Your task to perform on an android device: Show the shopping cart on costco. Add "razer nari" to the cart on costco Image 0: 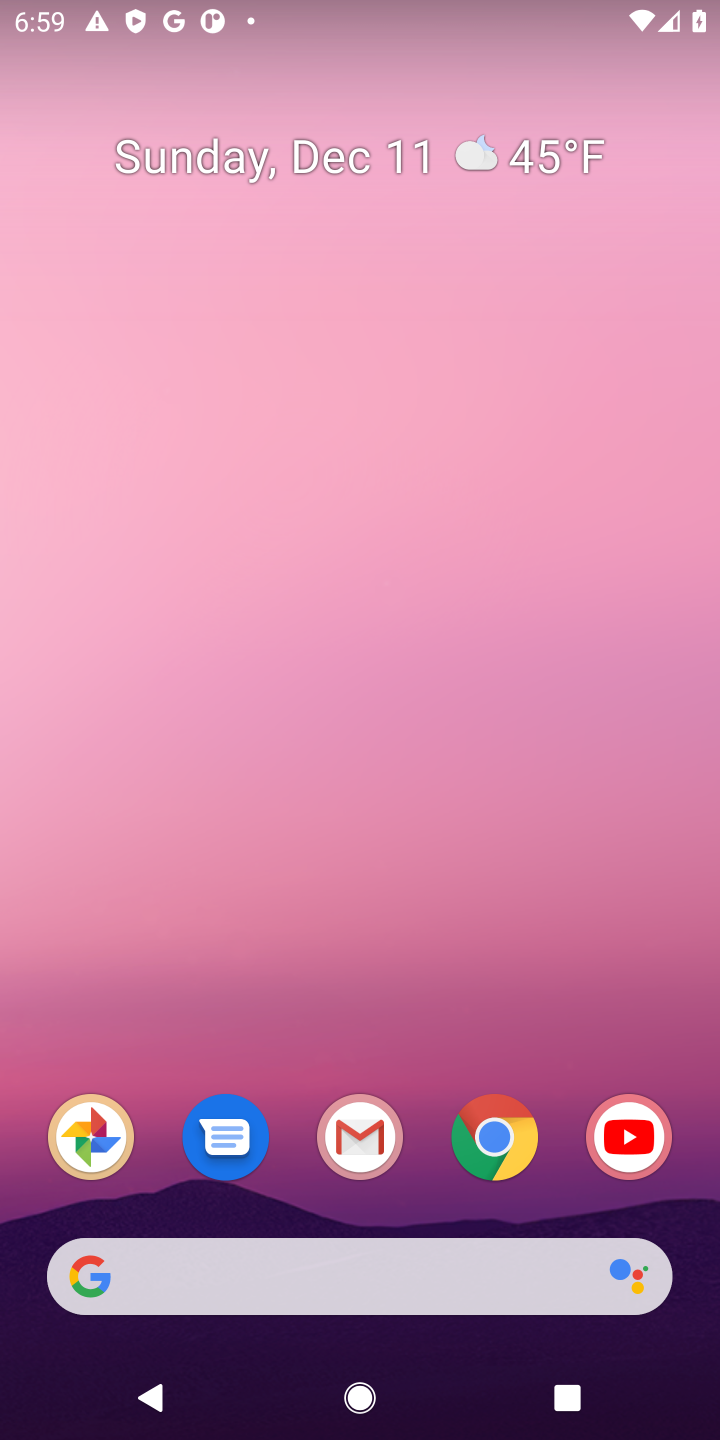
Step 0: click (466, 1136)
Your task to perform on an android device: Show the shopping cart on costco. Add "razer nari" to the cart on costco Image 1: 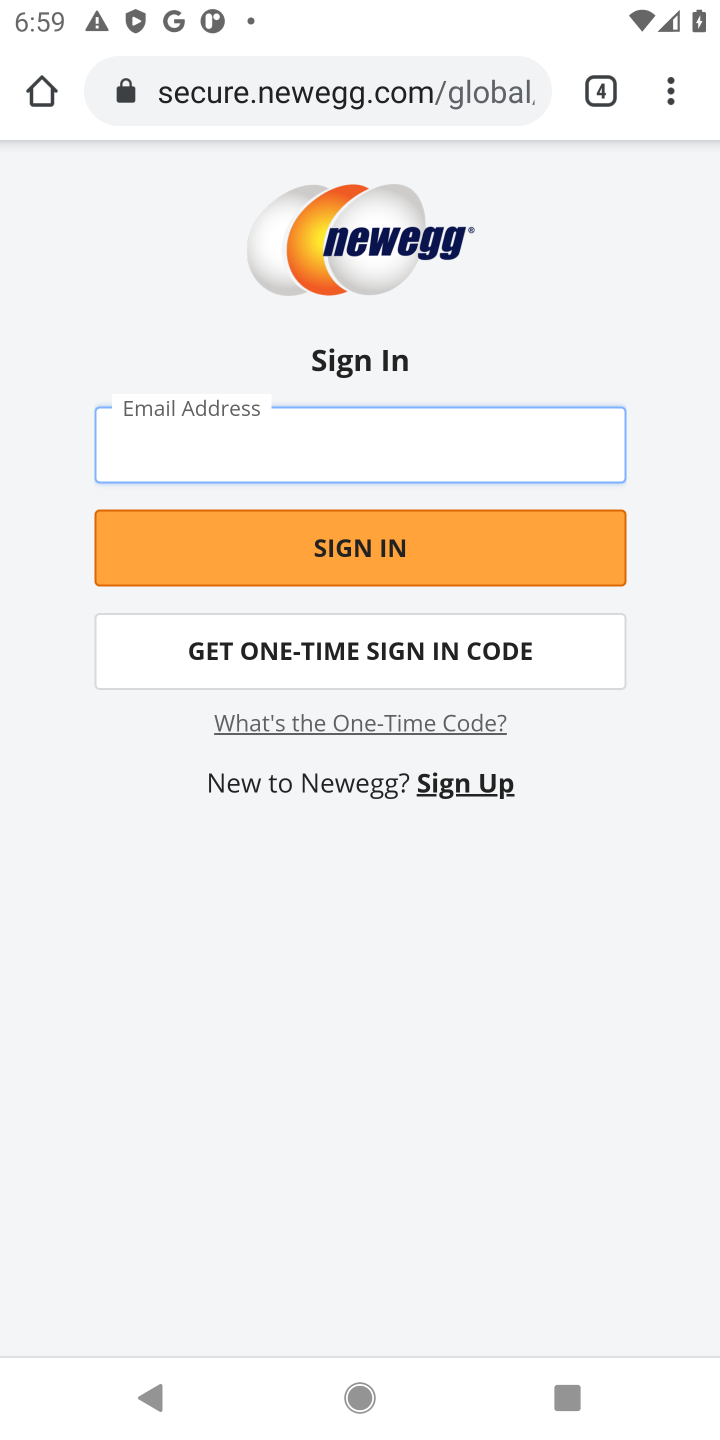
Step 1: click (427, 93)
Your task to perform on an android device: Show the shopping cart on costco. Add "razer nari" to the cart on costco Image 2: 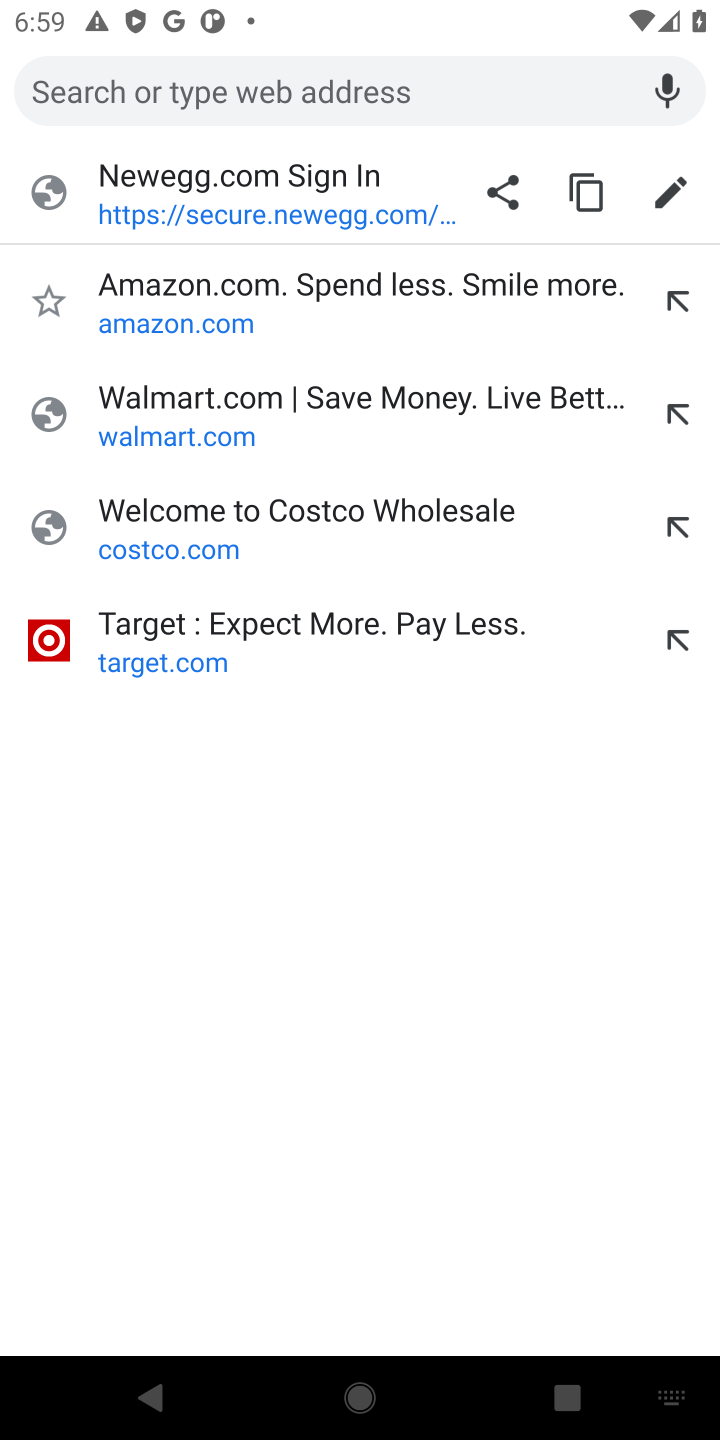
Step 2: click (184, 557)
Your task to perform on an android device: Show the shopping cart on costco. Add "razer nari" to the cart on costco Image 3: 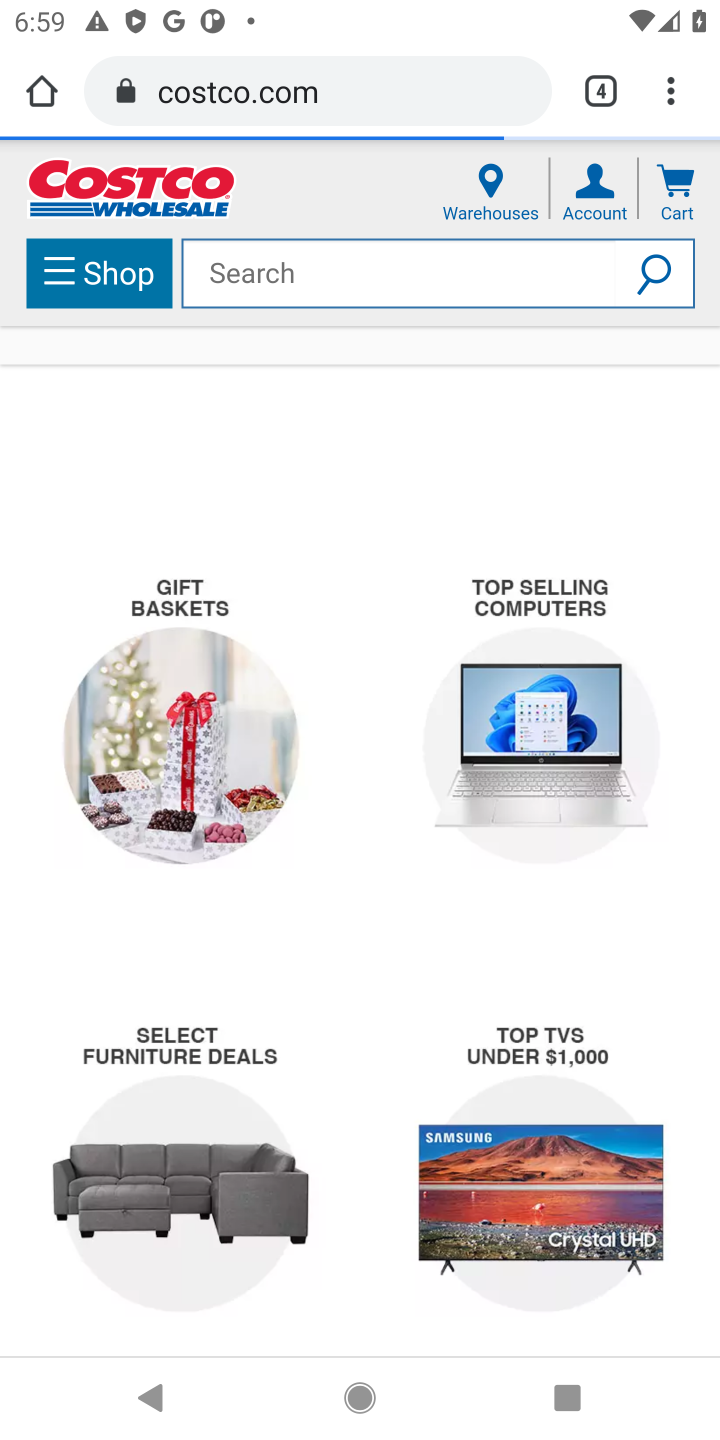
Step 3: click (679, 209)
Your task to perform on an android device: Show the shopping cart on costco. Add "razer nari" to the cart on costco Image 4: 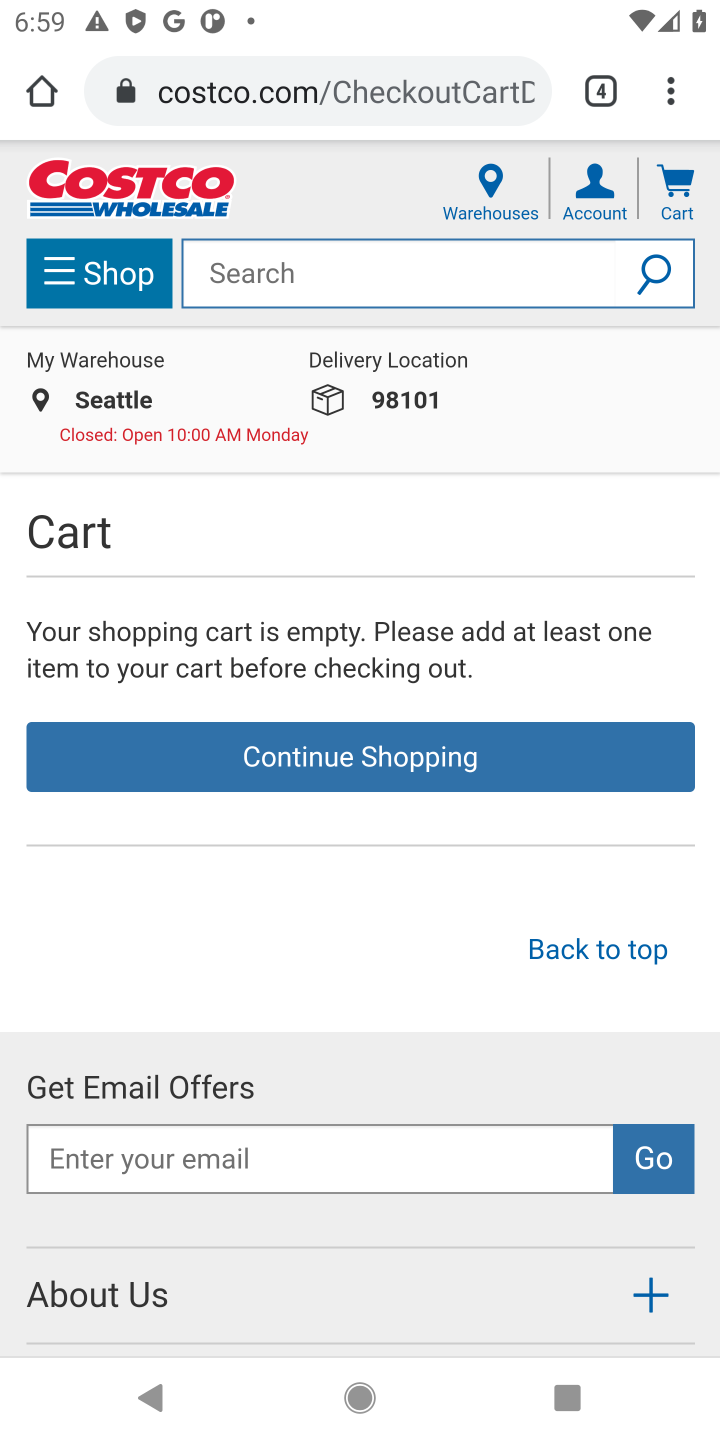
Step 4: click (532, 266)
Your task to perform on an android device: Show the shopping cart on costco. Add "razer nari" to the cart on costco Image 5: 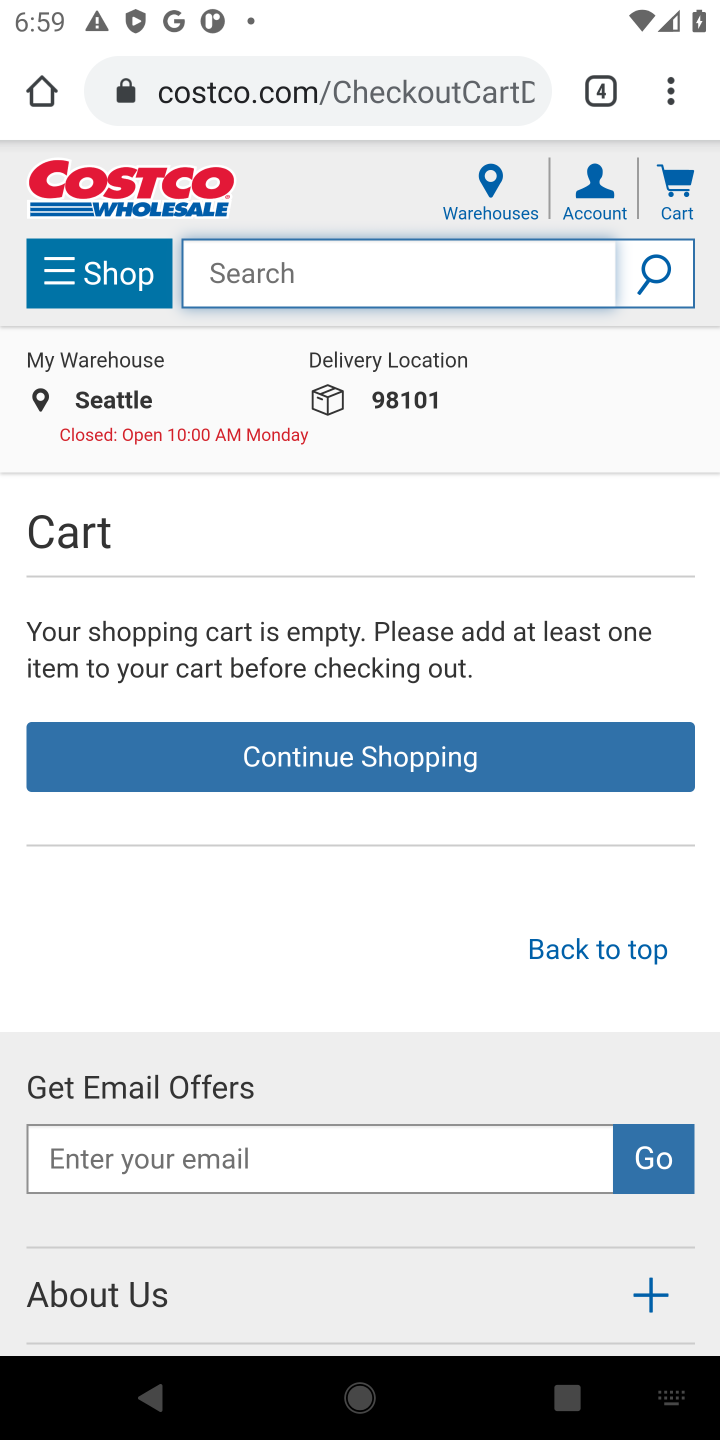
Step 5: type "razer nari"
Your task to perform on an android device: Show the shopping cart on costco. Add "razer nari" to the cart on costco Image 6: 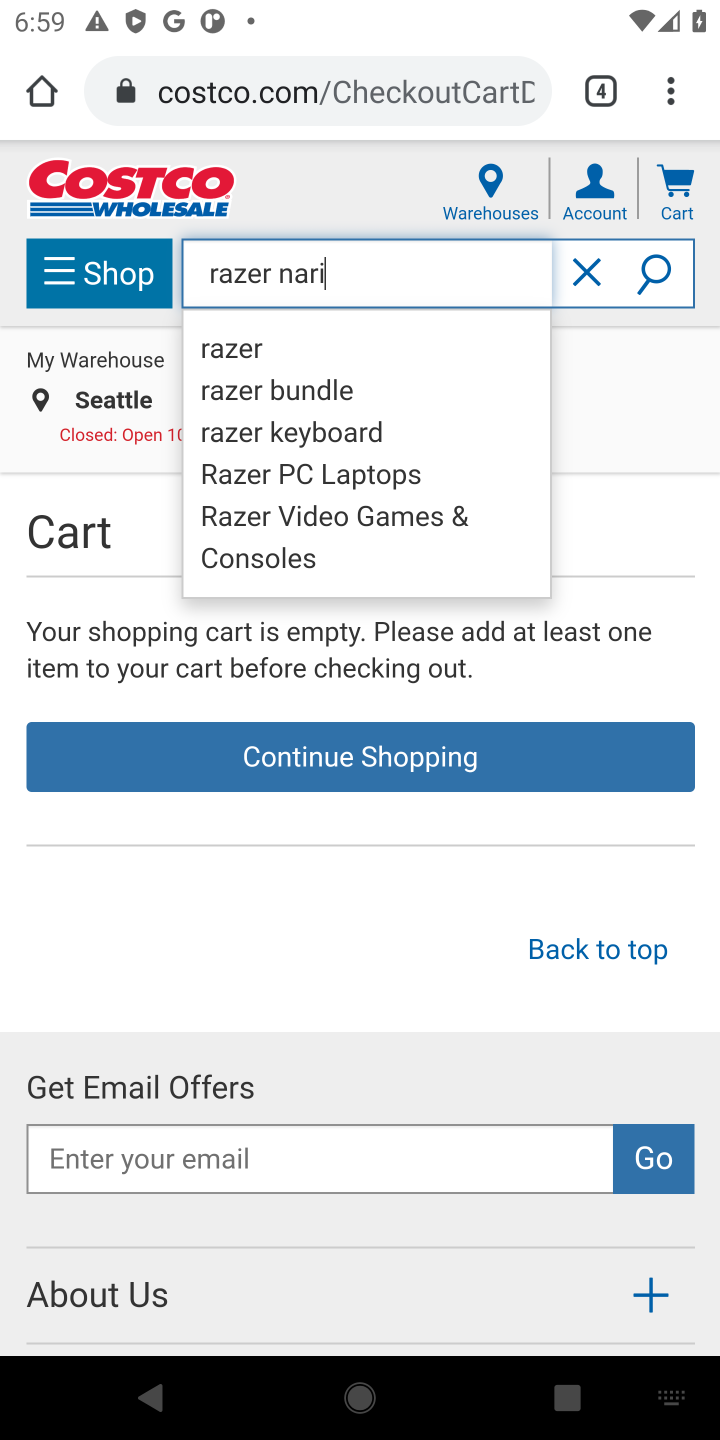
Step 6: click (653, 268)
Your task to perform on an android device: Show the shopping cart on costco. Add "razer nari" to the cart on costco Image 7: 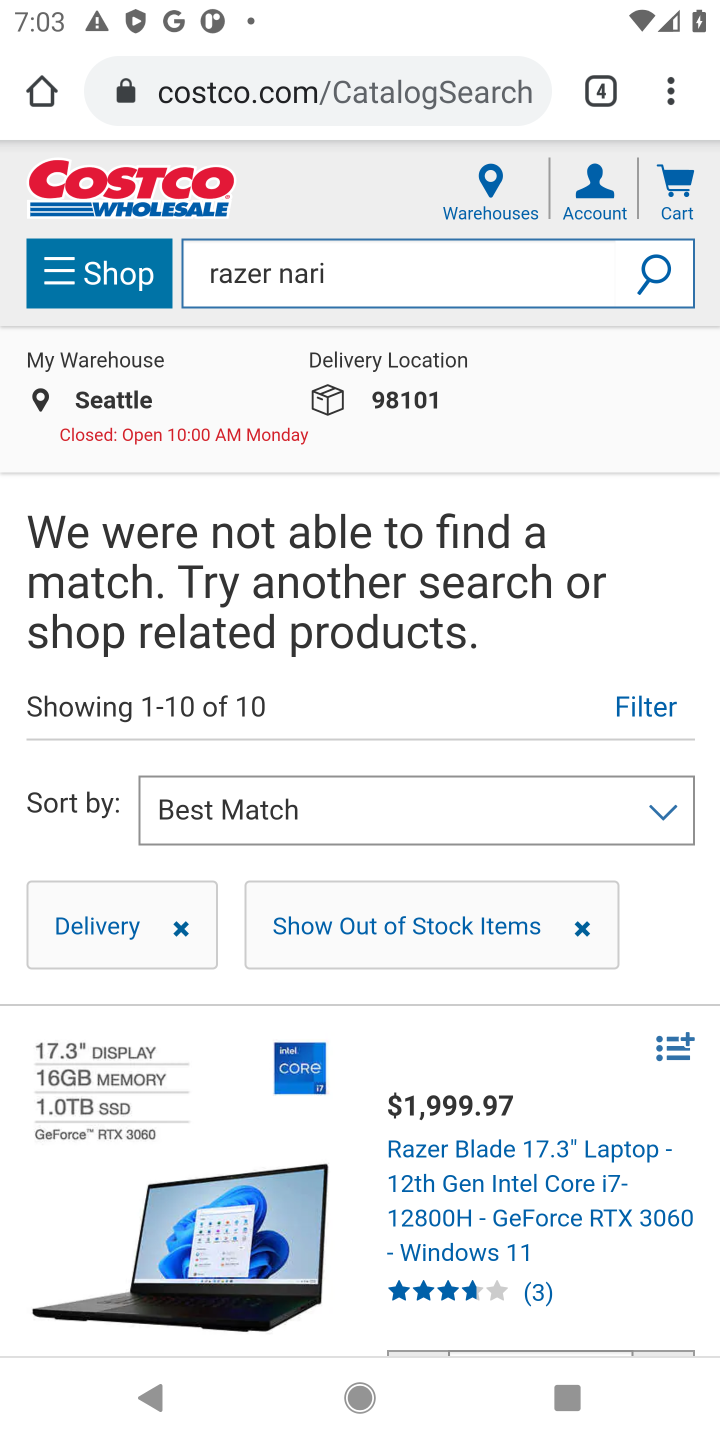
Step 7: task complete